Your task to perform on an android device: open sync settings in chrome Image 0: 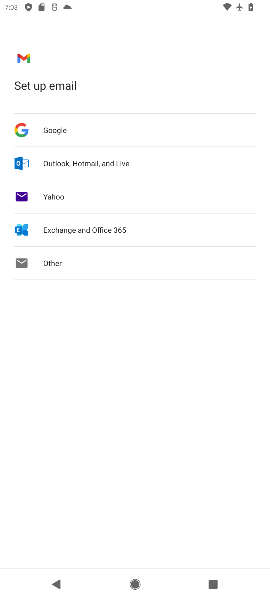
Step 0: press home button
Your task to perform on an android device: open sync settings in chrome Image 1: 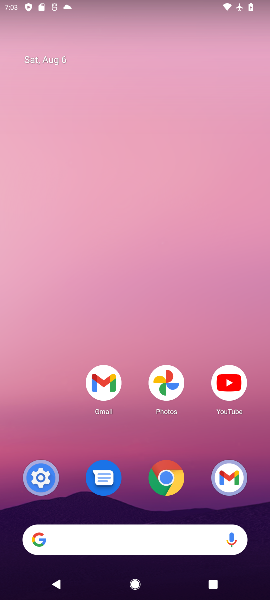
Step 1: click (156, 485)
Your task to perform on an android device: open sync settings in chrome Image 2: 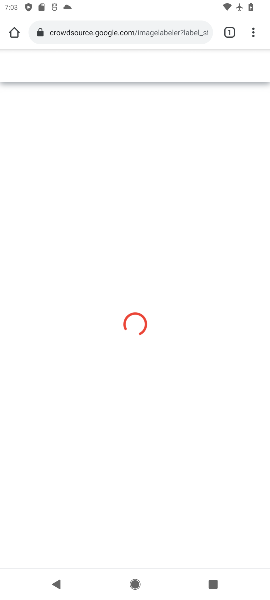
Step 2: drag from (255, 32) to (151, 433)
Your task to perform on an android device: open sync settings in chrome Image 3: 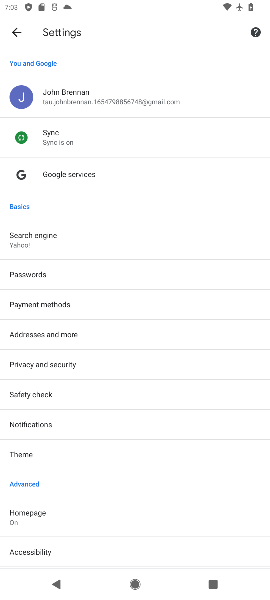
Step 3: drag from (99, 484) to (85, 448)
Your task to perform on an android device: open sync settings in chrome Image 4: 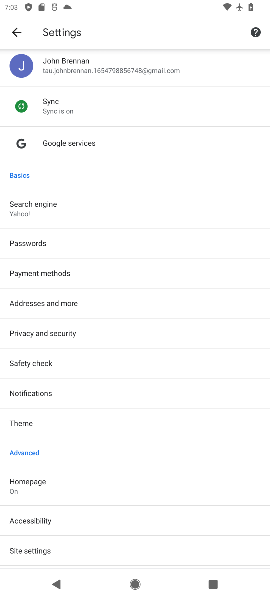
Step 4: click (47, 110)
Your task to perform on an android device: open sync settings in chrome Image 5: 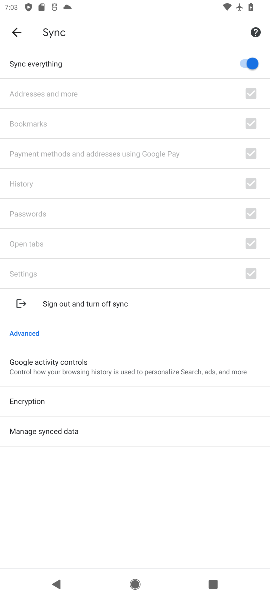
Step 5: task complete